Your task to perform on an android device: see tabs open on other devices in the chrome app Image 0: 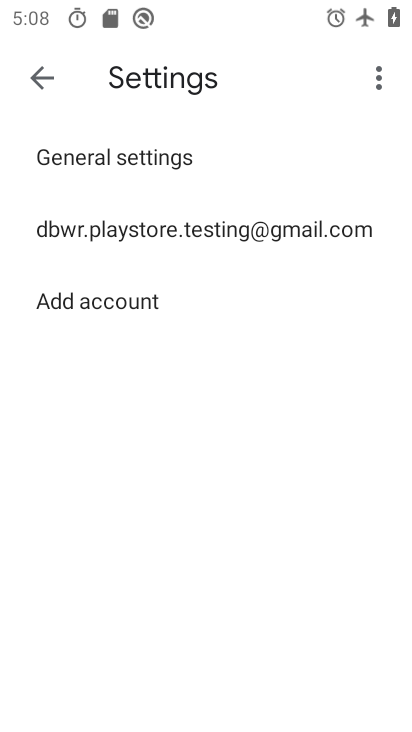
Step 0: press home button
Your task to perform on an android device: see tabs open on other devices in the chrome app Image 1: 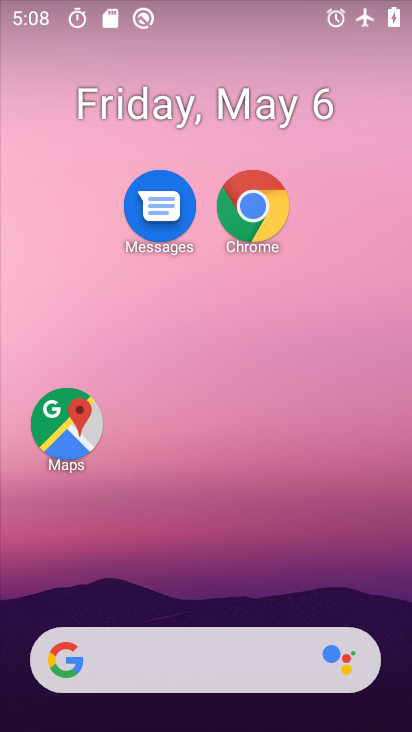
Step 1: click (263, 203)
Your task to perform on an android device: see tabs open on other devices in the chrome app Image 2: 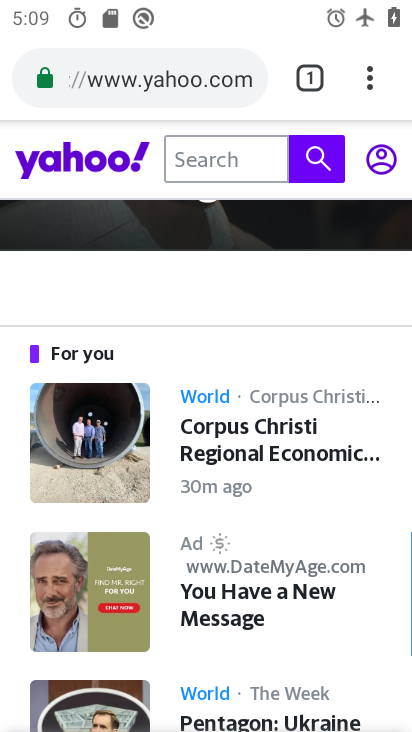
Step 2: click (370, 81)
Your task to perform on an android device: see tabs open on other devices in the chrome app Image 3: 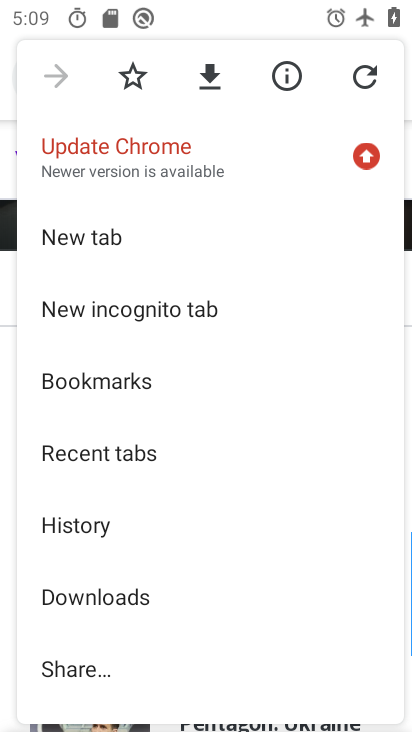
Step 3: click (5, 163)
Your task to perform on an android device: see tabs open on other devices in the chrome app Image 4: 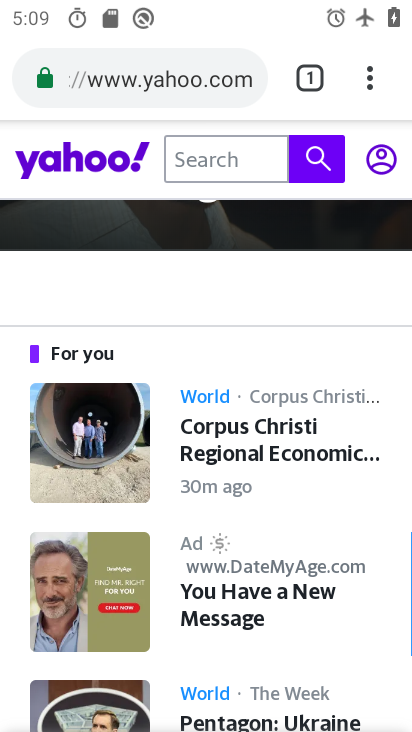
Step 4: click (306, 79)
Your task to perform on an android device: see tabs open on other devices in the chrome app Image 5: 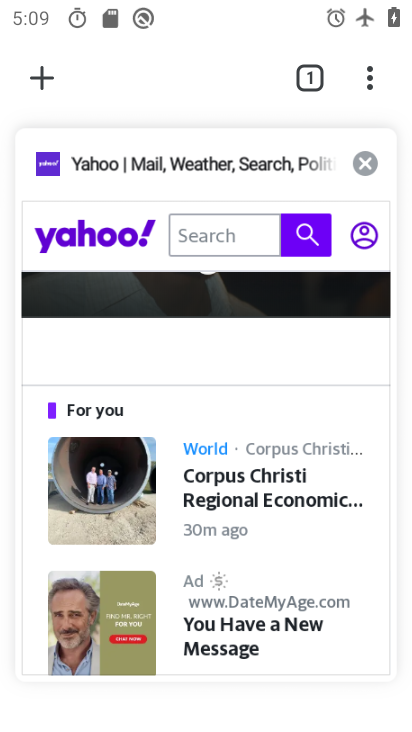
Step 5: task complete